Your task to perform on an android device: Show me productivity apps on the Play Store Image 0: 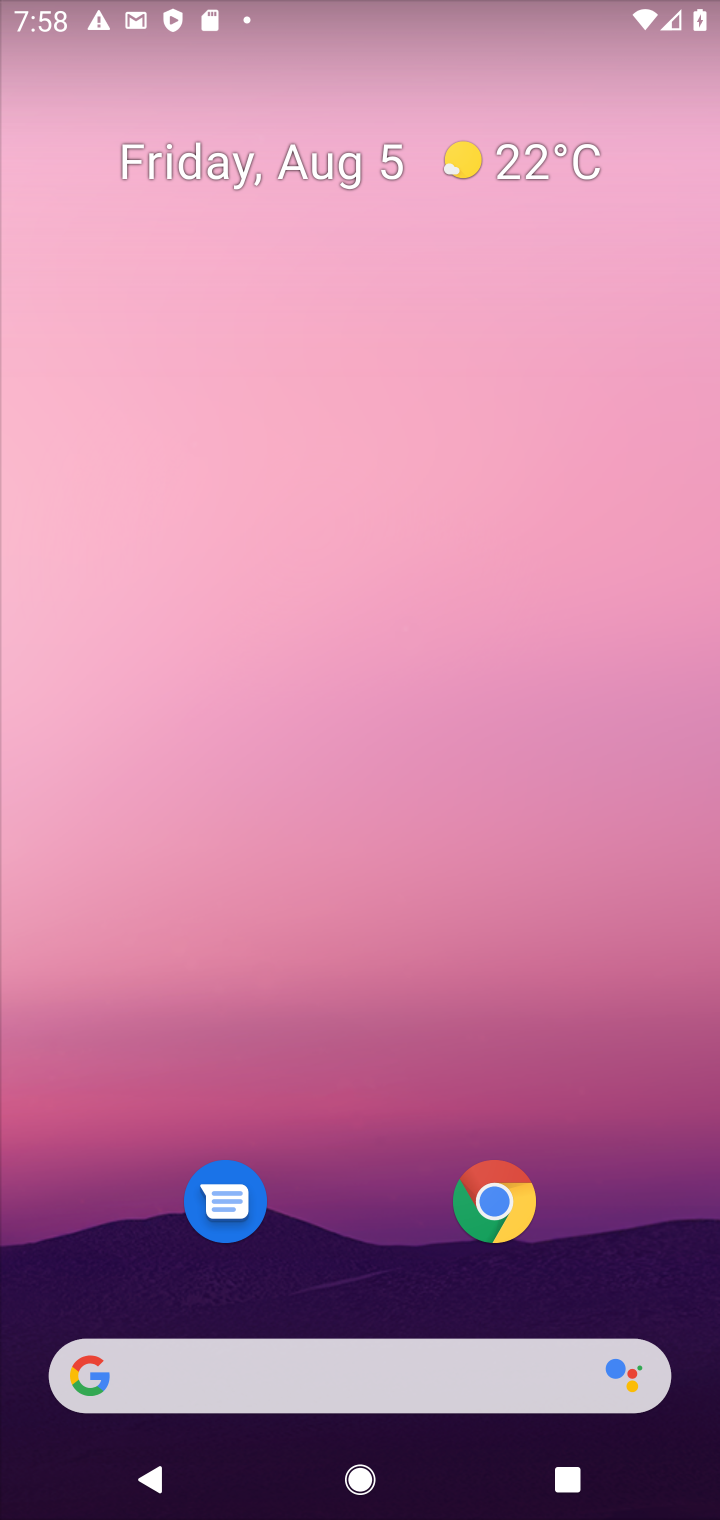
Step 0: press home button
Your task to perform on an android device: Show me productivity apps on the Play Store Image 1: 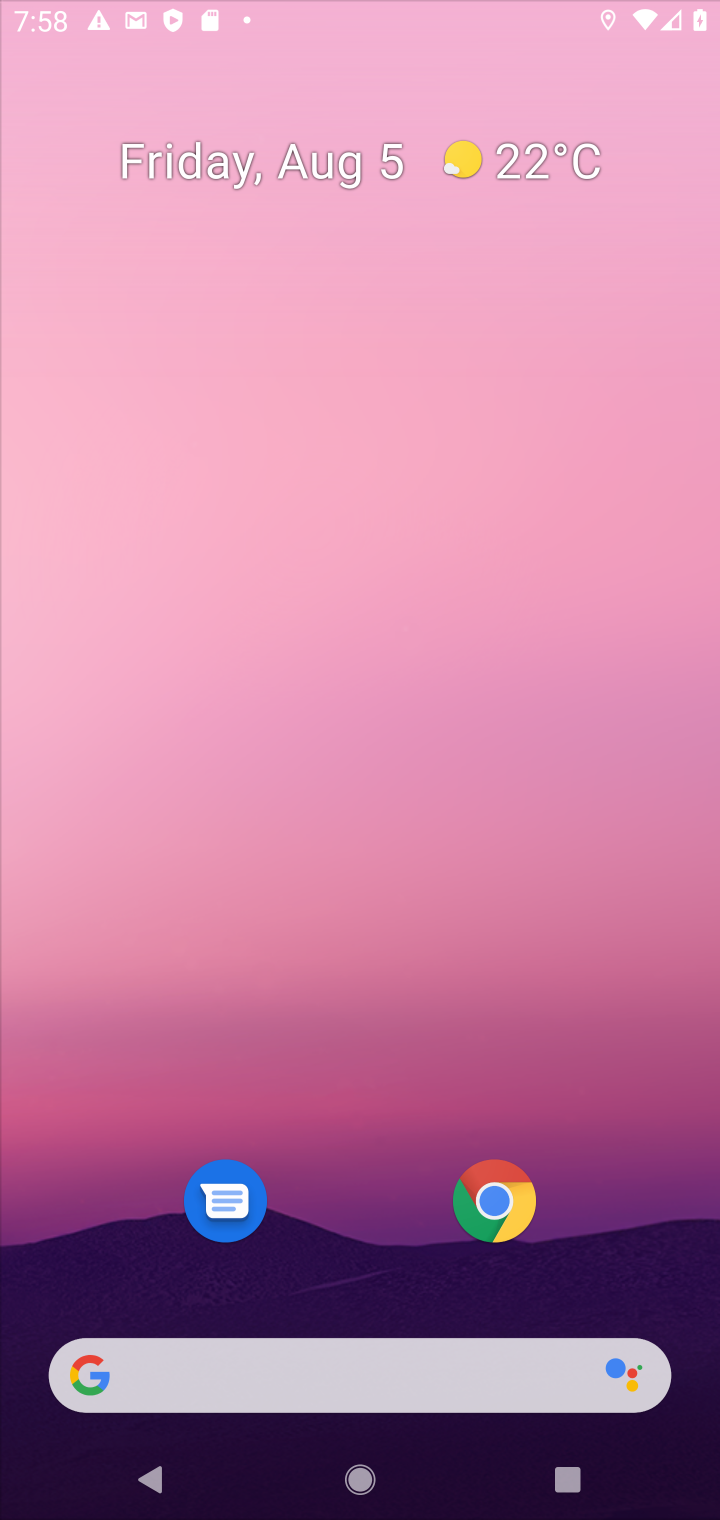
Step 1: press home button
Your task to perform on an android device: Show me productivity apps on the Play Store Image 2: 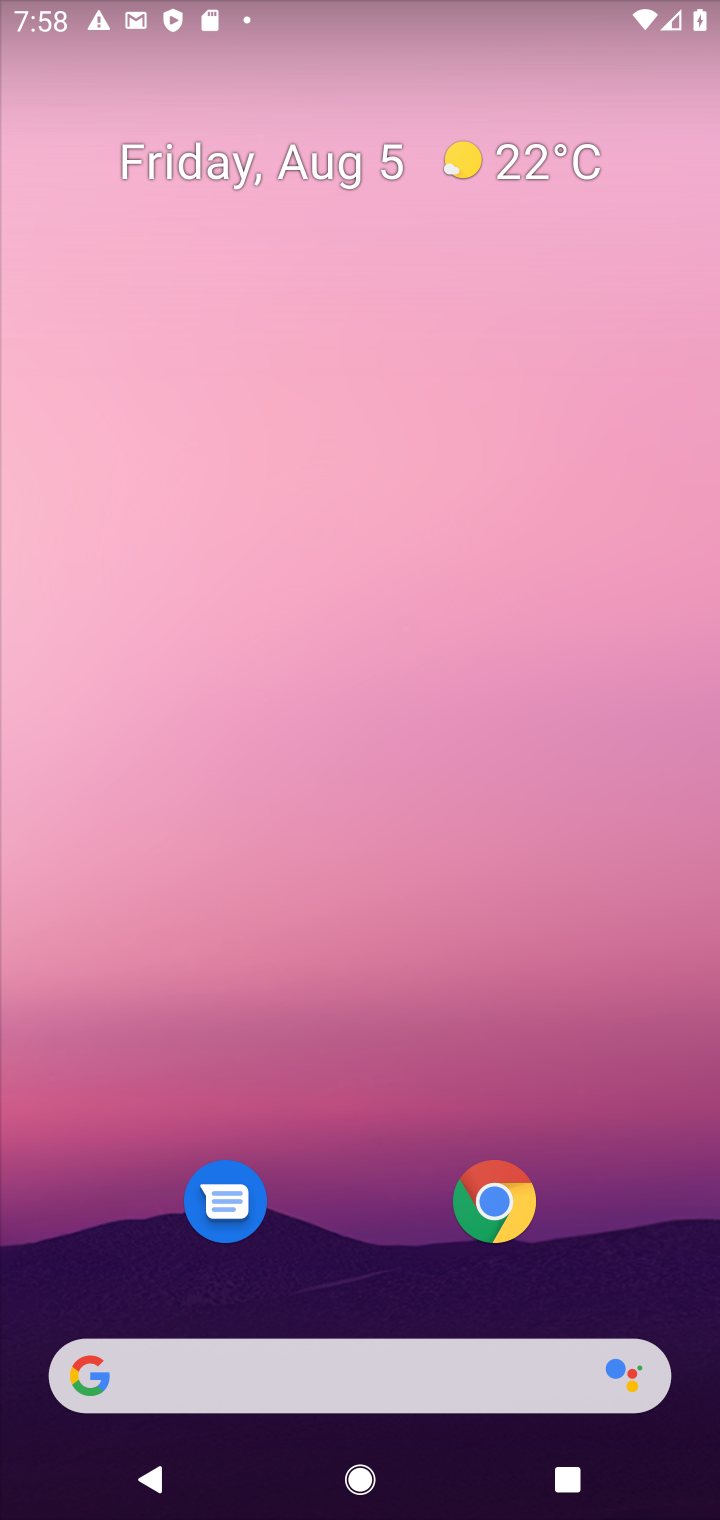
Step 2: drag from (412, 1160) to (584, 234)
Your task to perform on an android device: Show me productivity apps on the Play Store Image 3: 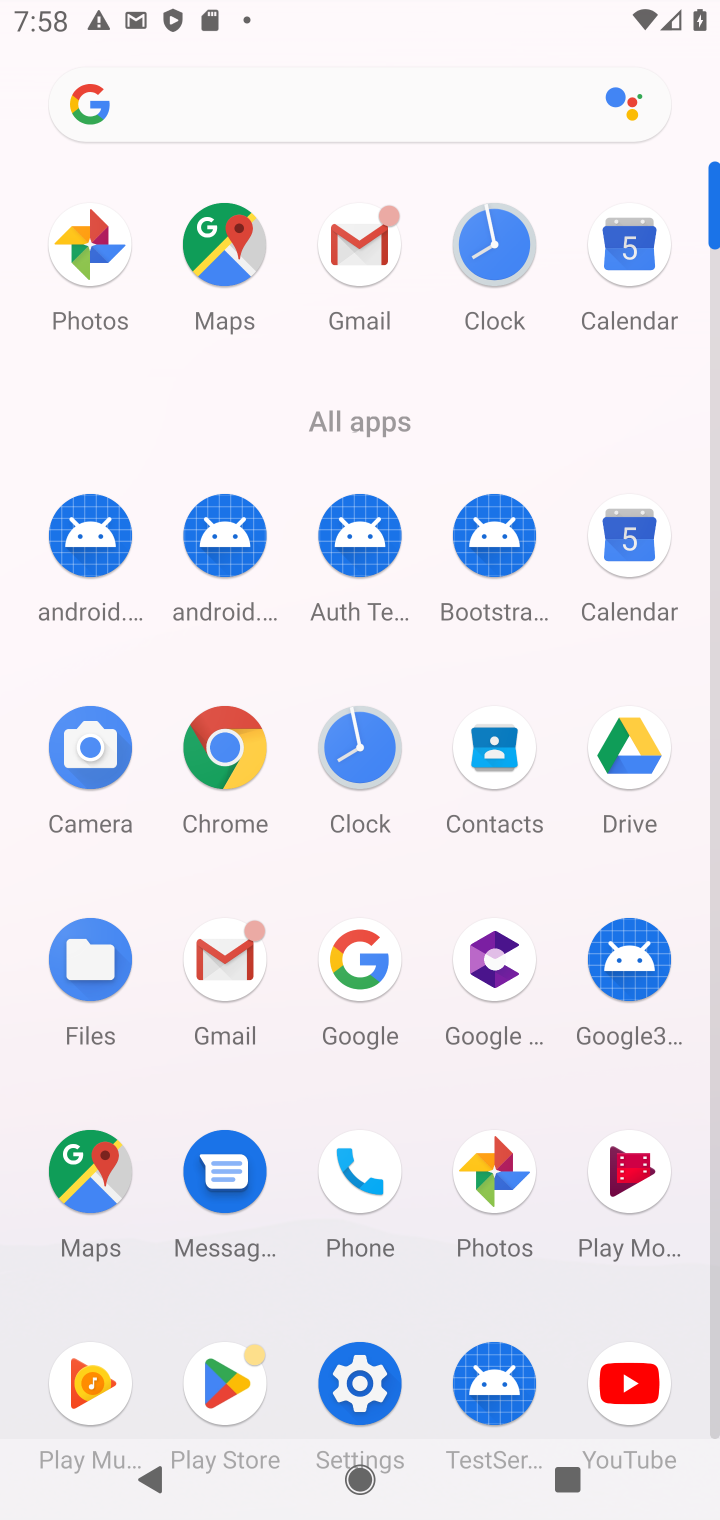
Step 3: click (231, 1380)
Your task to perform on an android device: Show me productivity apps on the Play Store Image 4: 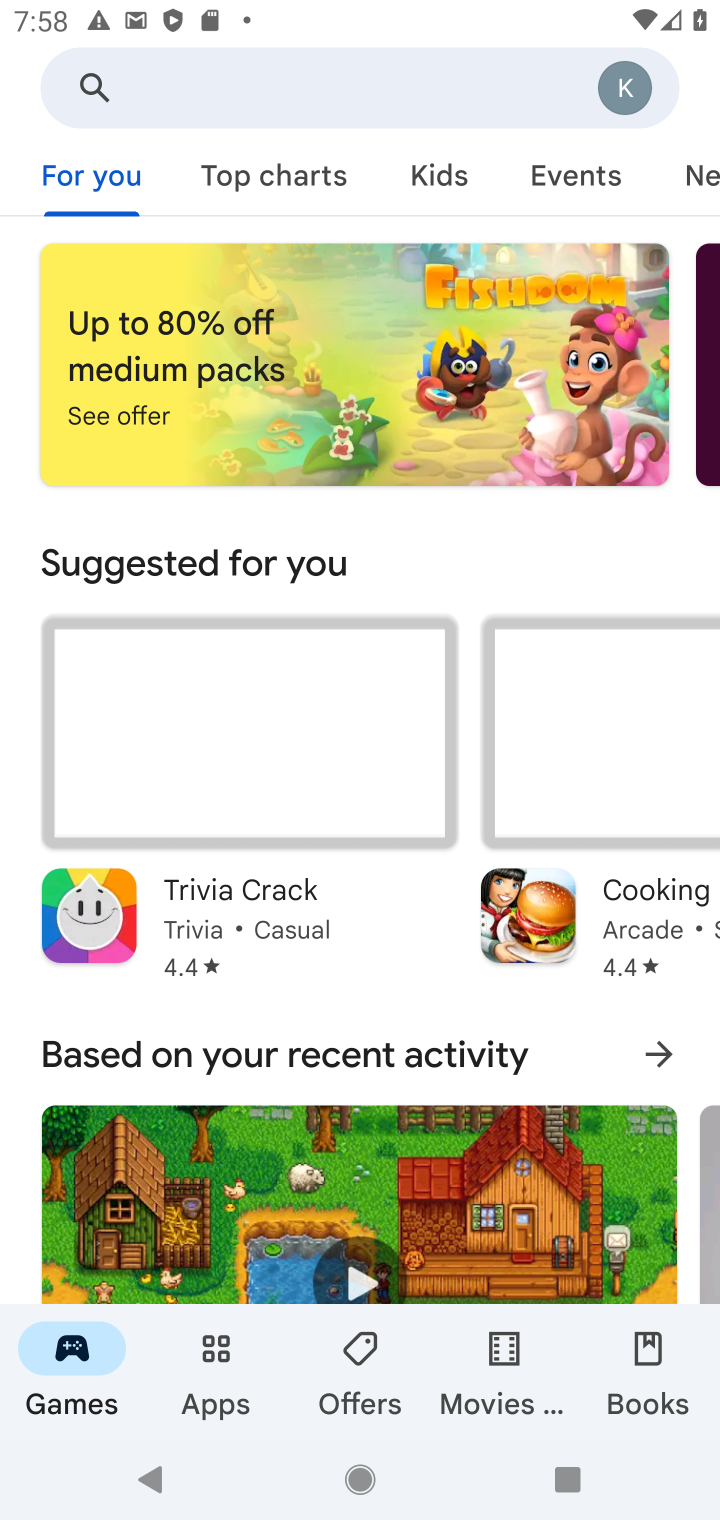
Step 4: click (184, 99)
Your task to perform on an android device: Show me productivity apps on the Play Store Image 5: 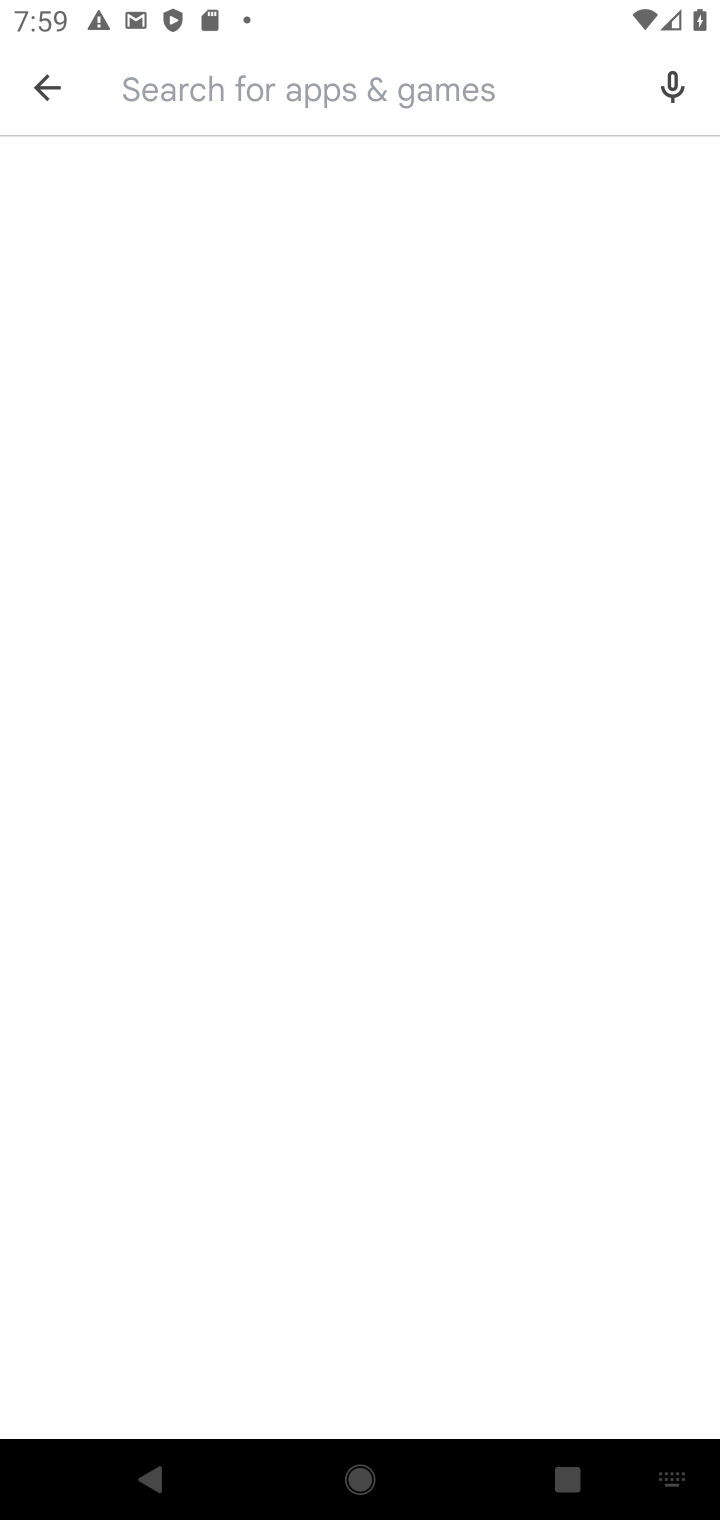
Step 5: type "productivity apps"
Your task to perform on an android device: Show me productivity apps on the Play Store Image 6: 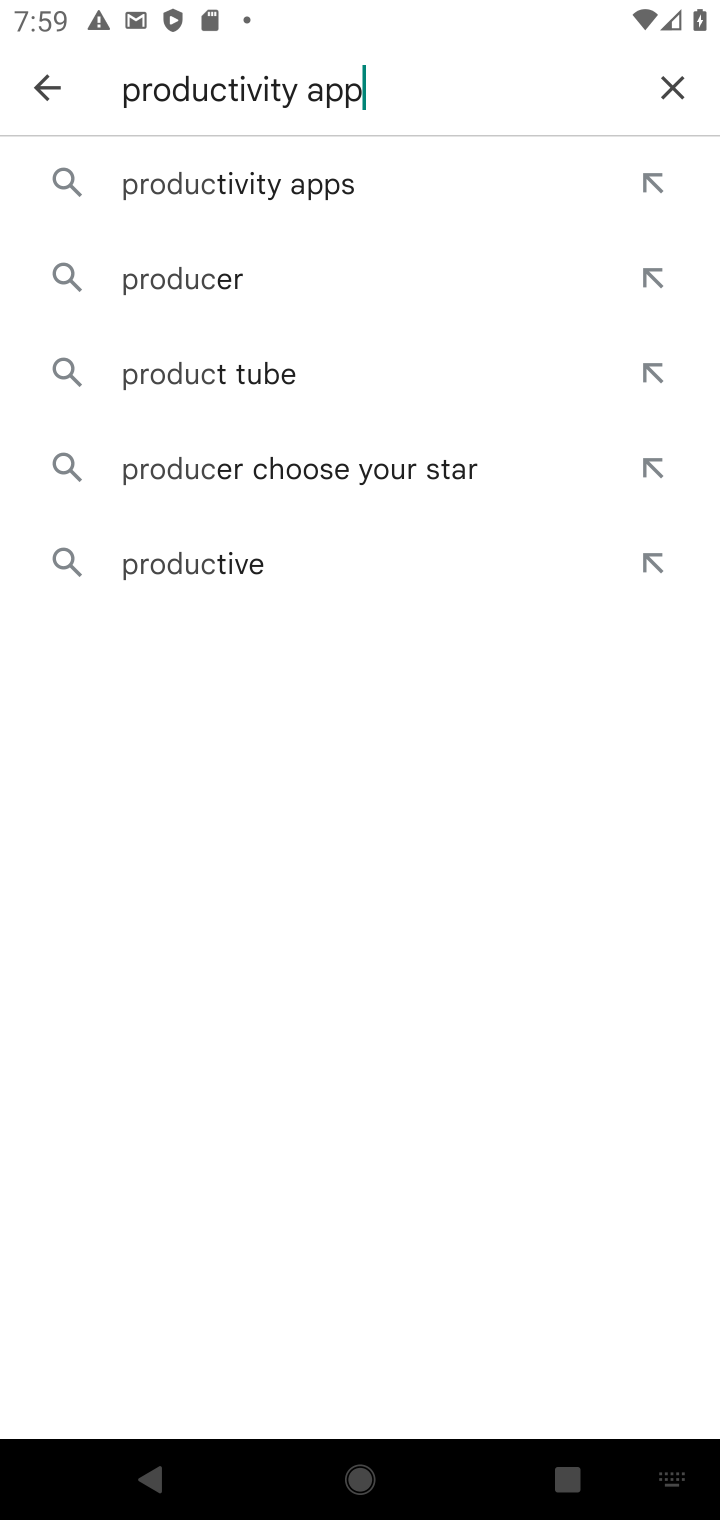
Step 6: type ""
Your task to perform on an android device: Show me productivity apps on the Play Store Image 7: 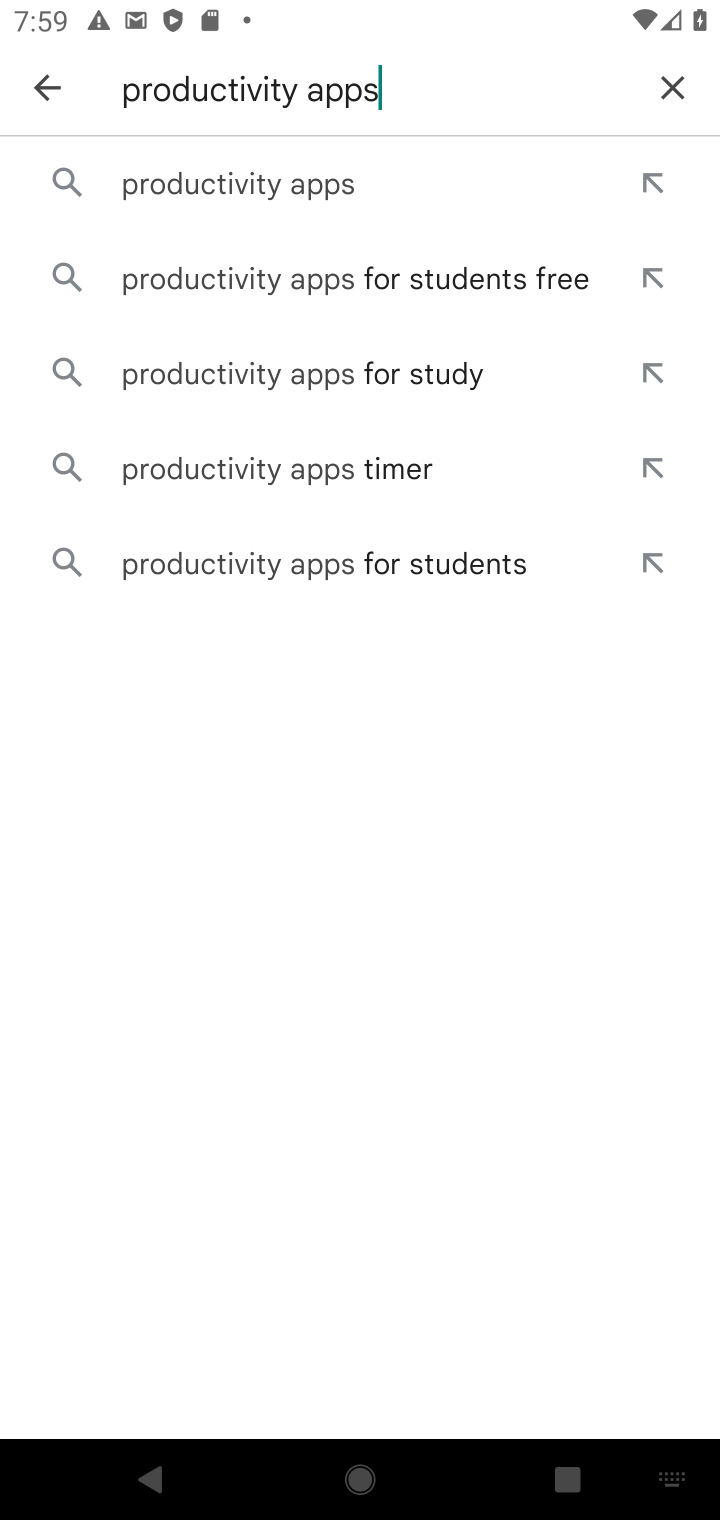
Step 7: click (219, 185)
Your task to perform on an android device: Show me productivity apps on the Play Store Image 8: 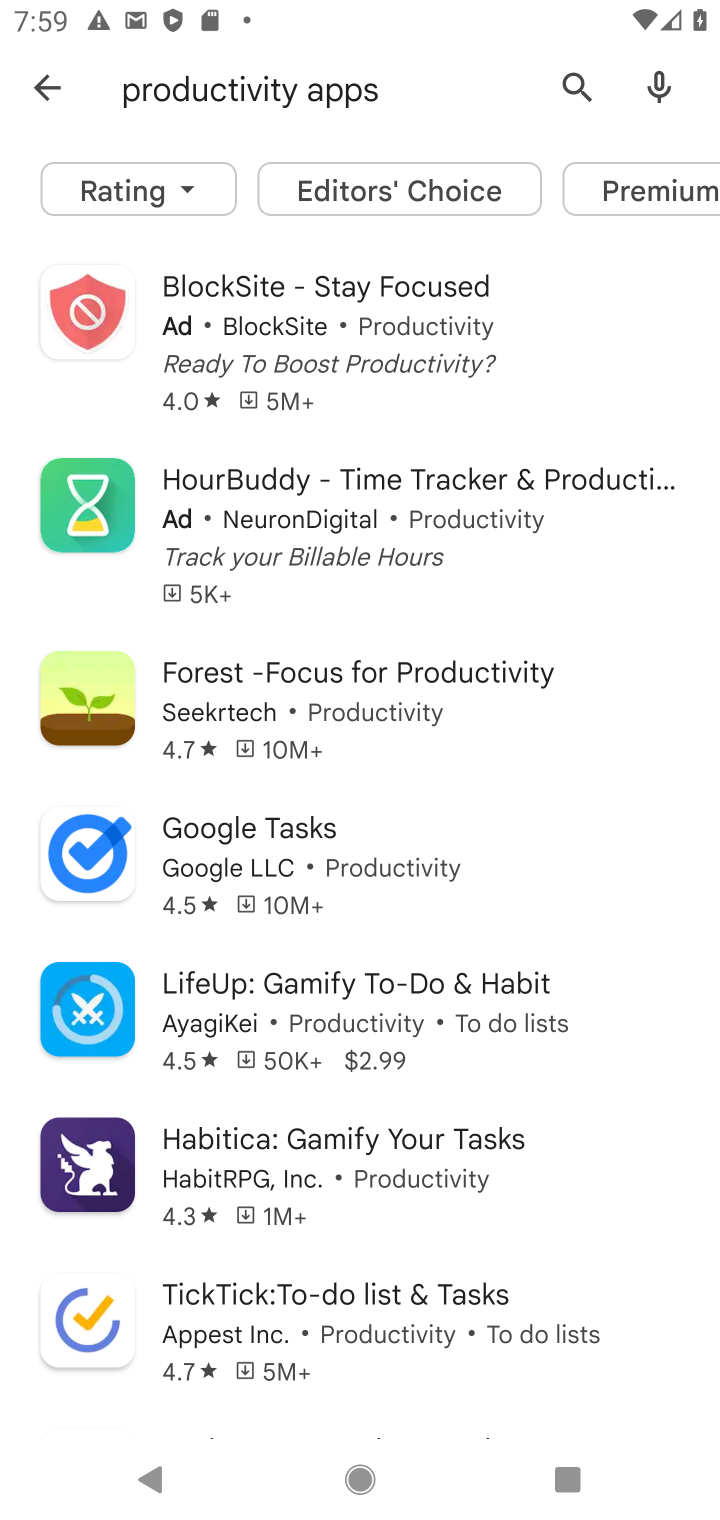
Step 8: task complete